Your task to perform on an android device: turn off javascript in the chrome app Image 0: 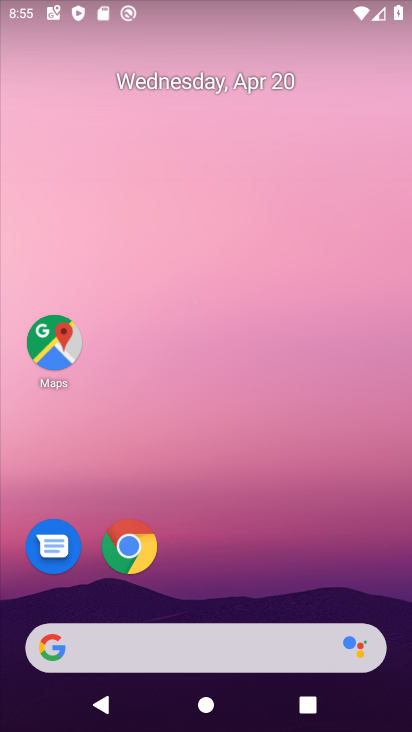
Step 0: click (127, 548)
Your task to perform on an android device: turn off javascript in the chrome app Image 1: 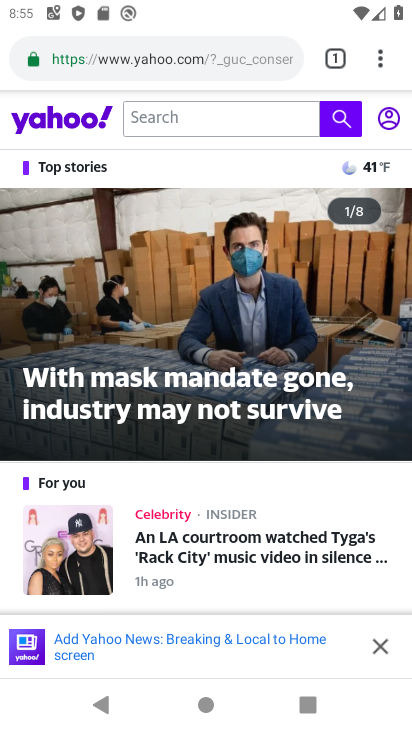
Step 1: click (377, 66)
Your task to perform on an android device: turn off javascript in the chrome app Image 2: 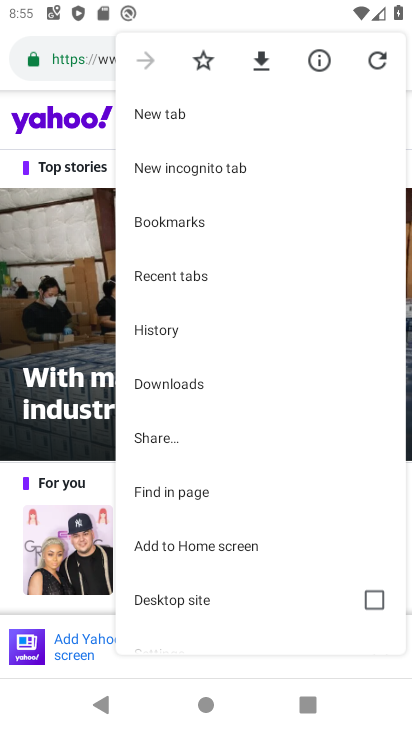
Step 2: drag from (165, 611) to (182, 268)
Your task to perform on an android device: turn off javascript in the chrome app Image 3: 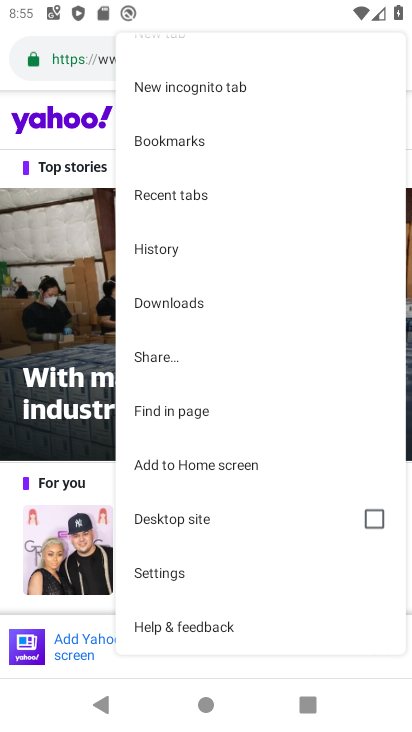
Step 3: click (167, 569)
Your task to perform on an android device: turn off javascript in the chrome app Image 4: 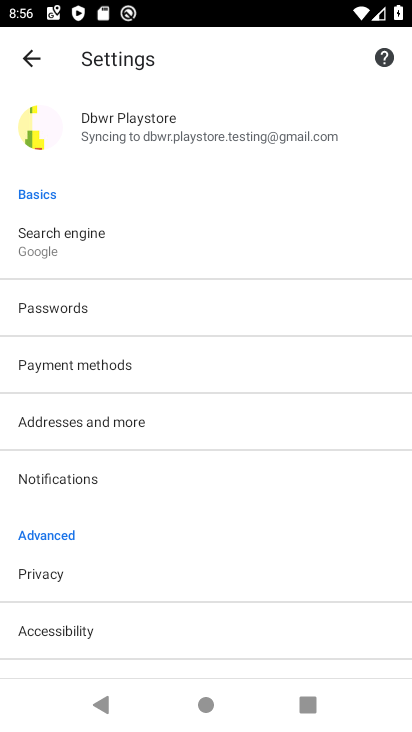
Step 4: drag from (127, 631) to (177, 271)
Your task to perform on an android device: turn off javascript in the chrome app Image 5: 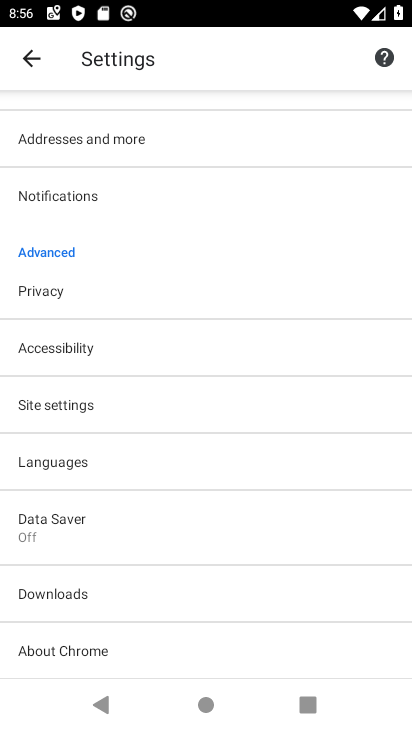
Step 5: click (64, 400)
Your task to perform on an android device: turn off javascript in the chrome app Image 6: 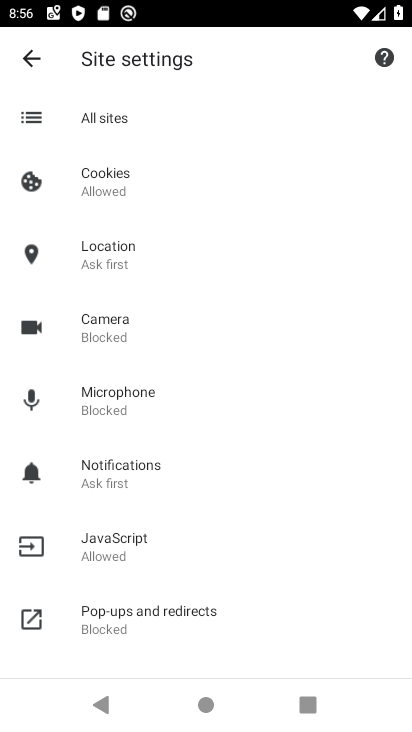
Step 6: click (111, 545)
Your task to perform on an android device: turn off javascript in the chrome app Image 7: 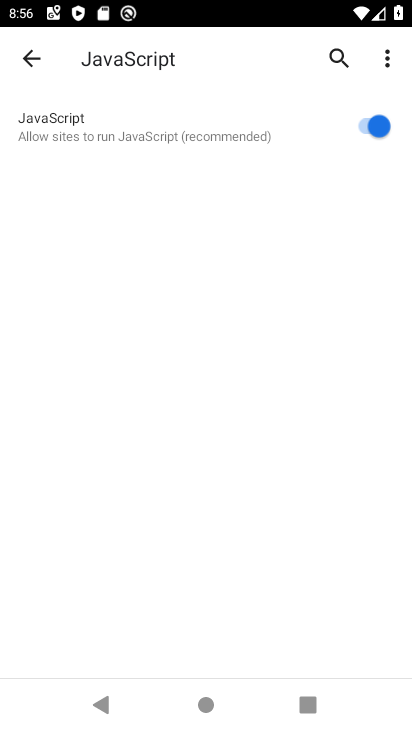
Step 7: click (363, 122)
Your task to perform on an android device: turn off javascript in the chrome app Image 8: 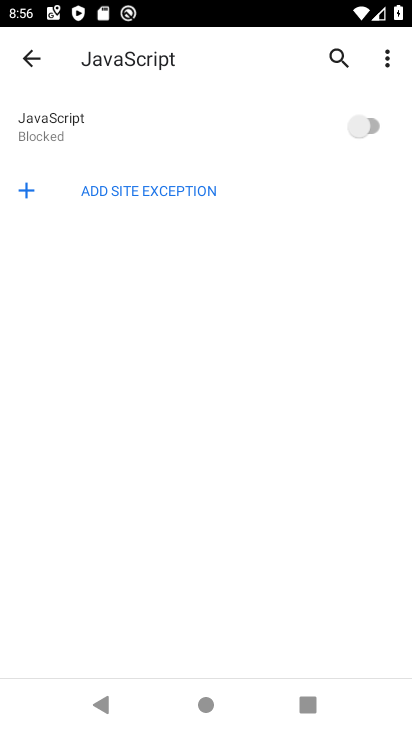
Step 8: task complete